Your task to perform on an android device: Go to wifi settings Image 0: 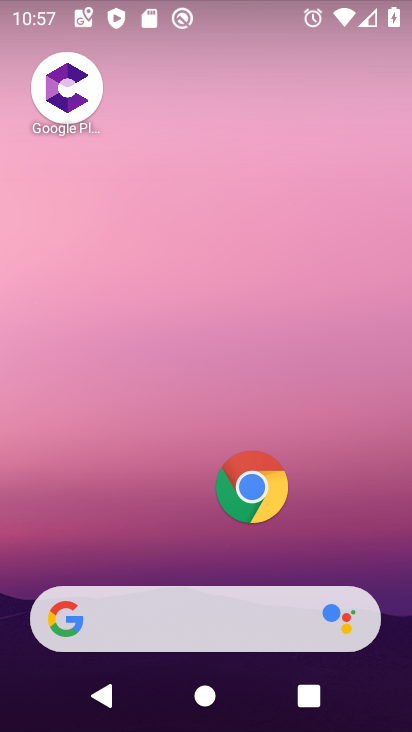
Step 0: drag from (181, 536) to (185, 160)
Your task to perform on an android device: Go to wifi settings Image 1: 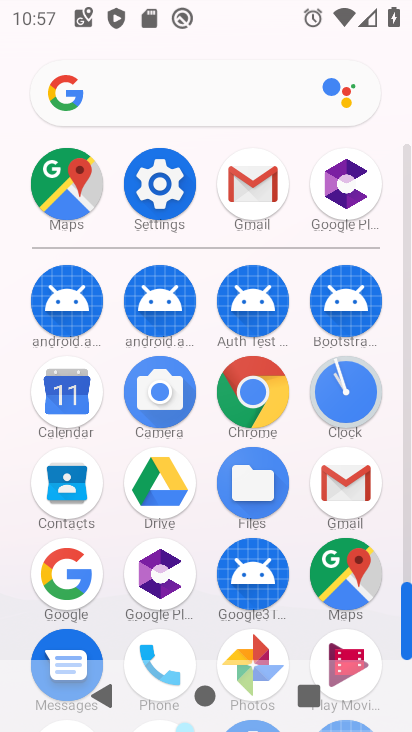
Step 1: click (183, 153)
Your task to perform on an android device: Go to wifi settings Image 2: 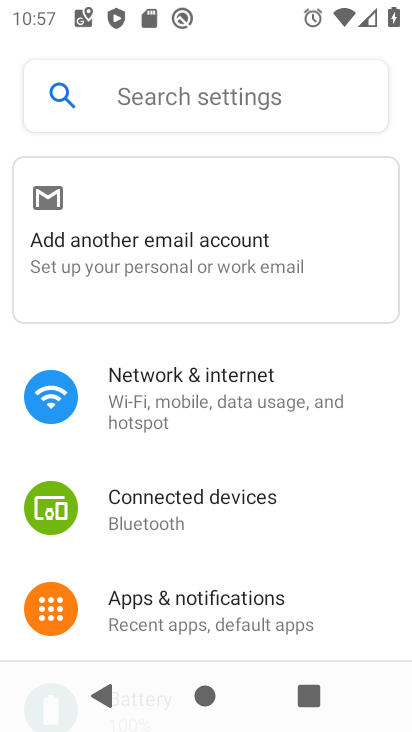
Step 2: click (219, 384)
Your task to perform on an android device: Go to wifi settings Image 3: 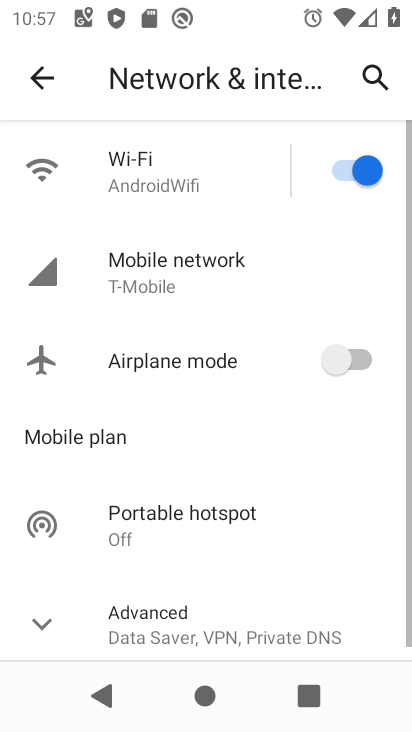
Step 3: click (179, 190)
Your task to perform on an android device: Go to wifi settings Image 4: 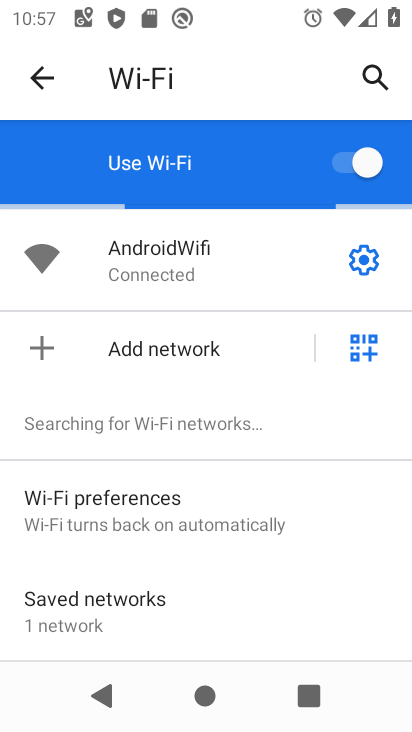
Step 4: task complete